Your task to perform on an android device: Is it going to rain this weekend? Image 0: 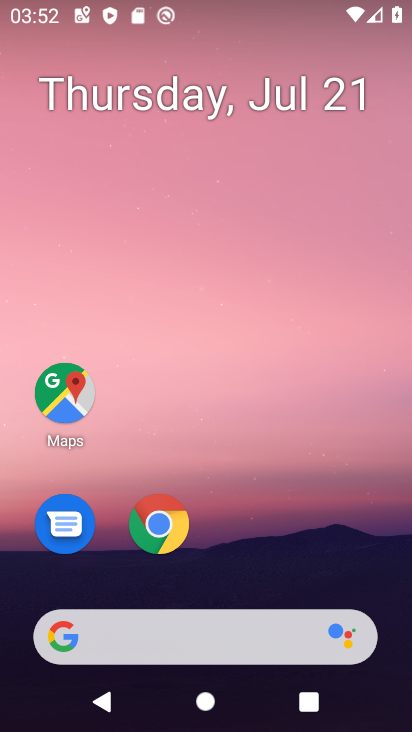
Step 0: drag from (274, 559) to (315, 55)
Your task to perform on an android device: Is it going to rain this weekend? Image 1: 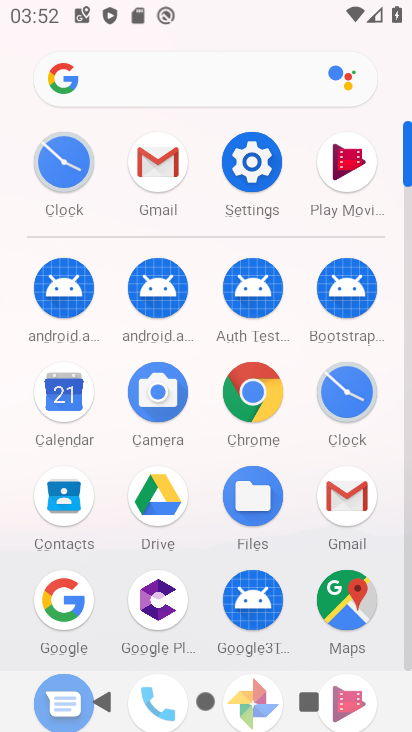
Step 1: click (73, 597)
Your task to perform on an android device: Is it going to rain this weekend? Image 2: 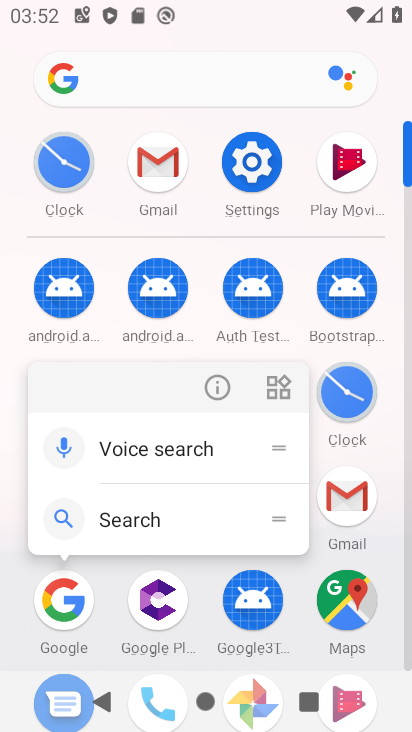
Step 2: click (62, 591)
Your task to perform on an android device: Is it going to rain this weekend? Image 3: 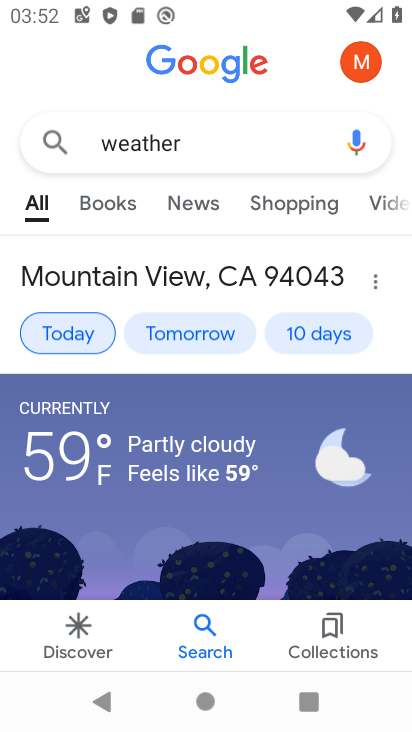
Step 3: click (308, 331)
Your task to perform on an android device: Is it going to rain this weekend? Image 4: 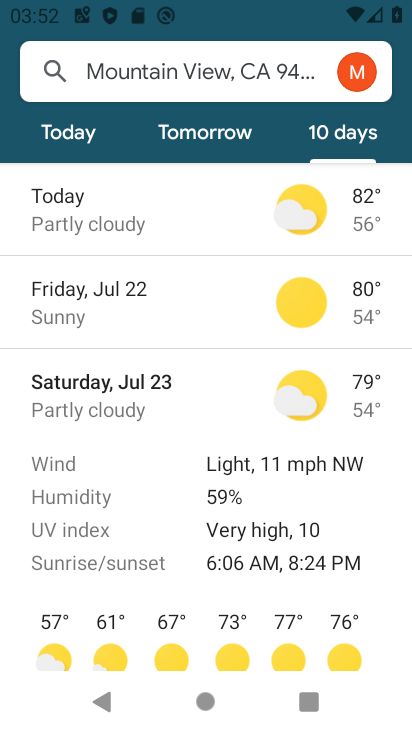
Step 4: task complete